Your task to perform on an android device: allow notifications from all sites in the chrome app Image 0: 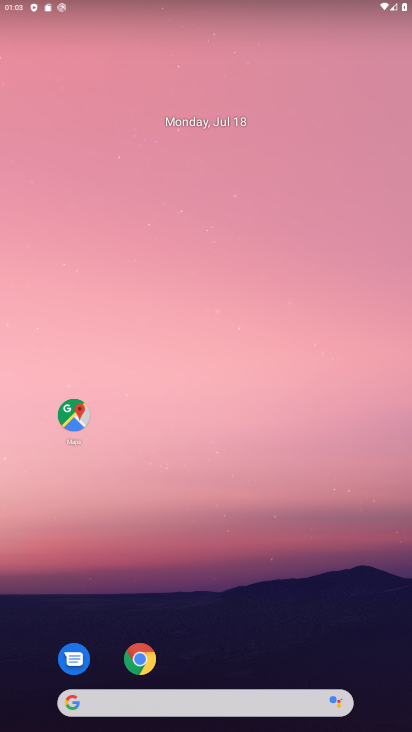
Step 0: drag from (237, 613) to (184, 99)
Your task to perform on an android device: allow notifications from all sites in the chrome app Image 1: 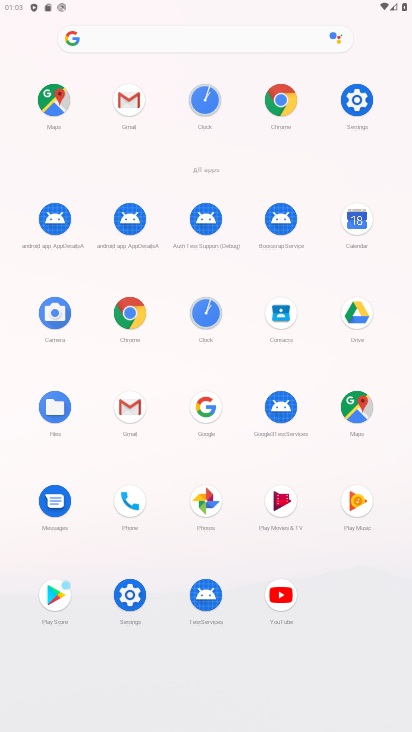
Step 1: click (137, 318)
Your task to perform on an android device: allow notifications from all sites in the chrome app Image 2: 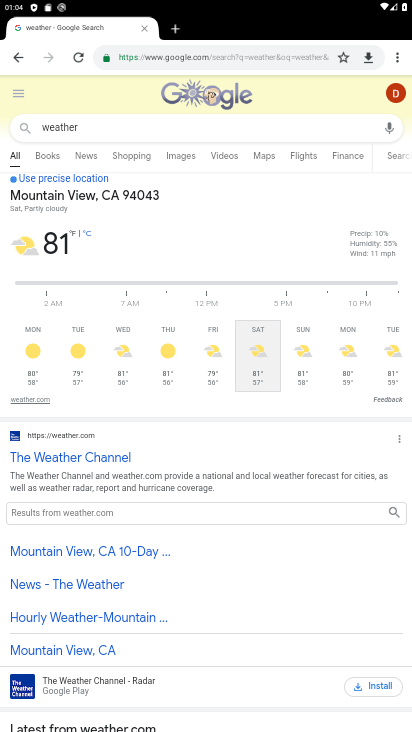
Step 2: drag from (397, 56) to (264, 359)
Your task to perform on an android device: allow notifications from all sites in the chrome app Image 3: 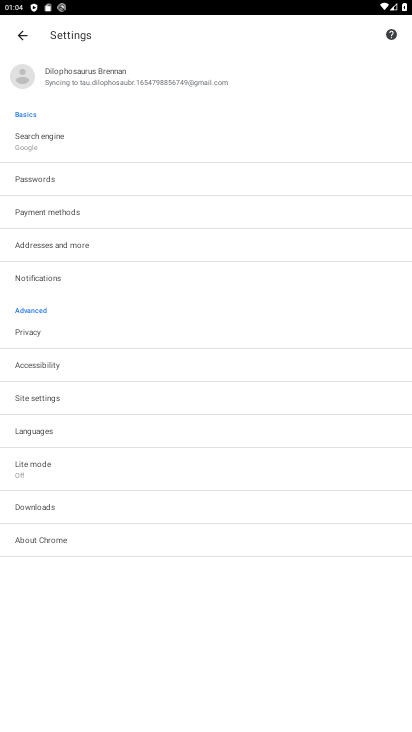
Step 3: click (51, 278)
Your task to perform on an android device: allow notifications from all sites in the chrome app Image 4: 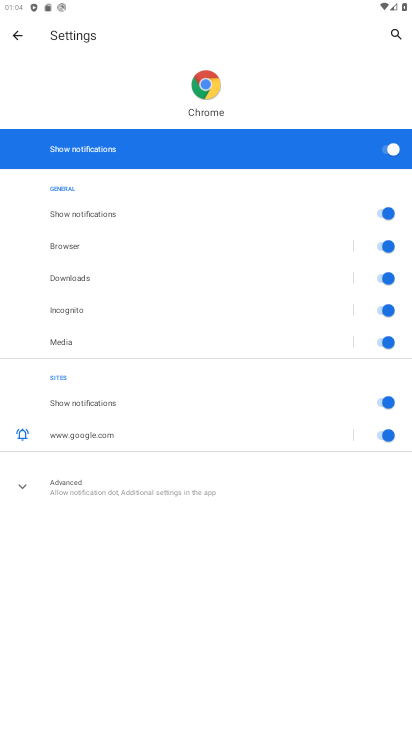
Step 4: task complete